Your task to perform on an android device: Go to Google maps Image 0: 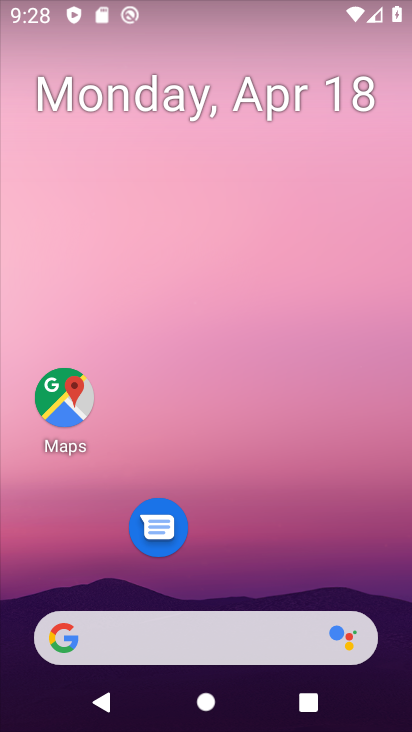
Step 0: click (71, 404)
Your task to perform on an android device: Go to Google maps Image 1: 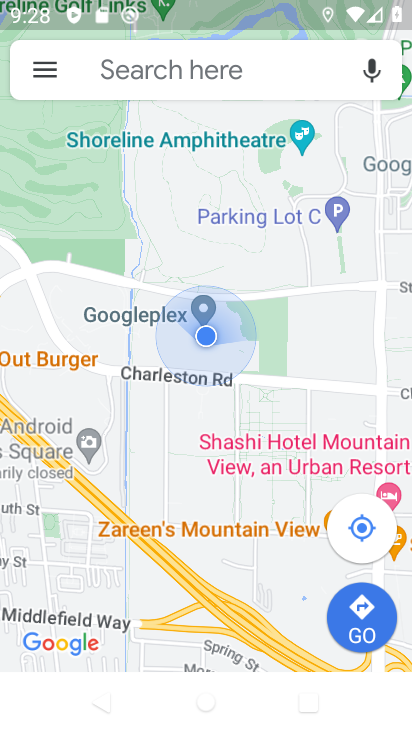
Step 1: task complete